Your task to perform on an android device: set the stopwatch Image 0: 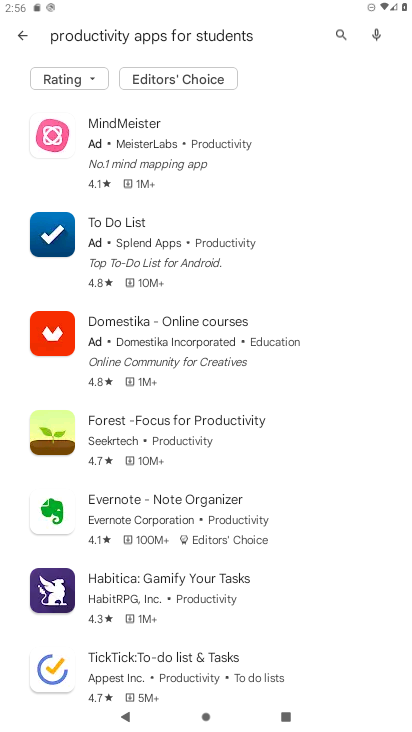
Step 0: press home button
Your task to perform on an android device: set the stopwatch Image 1: 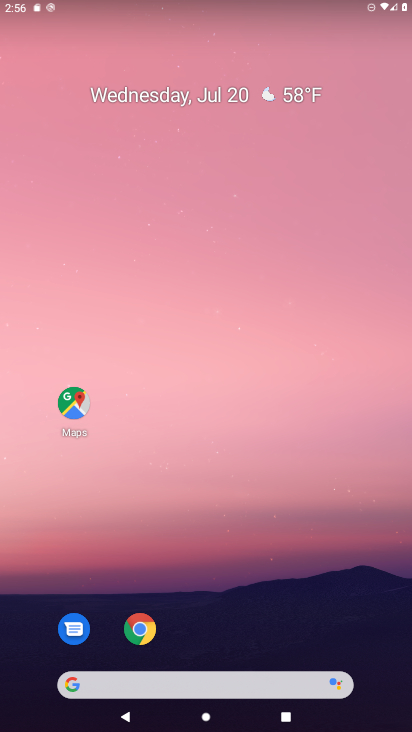
Step 1: drag from (272, 604) to (222, 71)
Your task to perform on an android device: set the stopwatch Image 2: 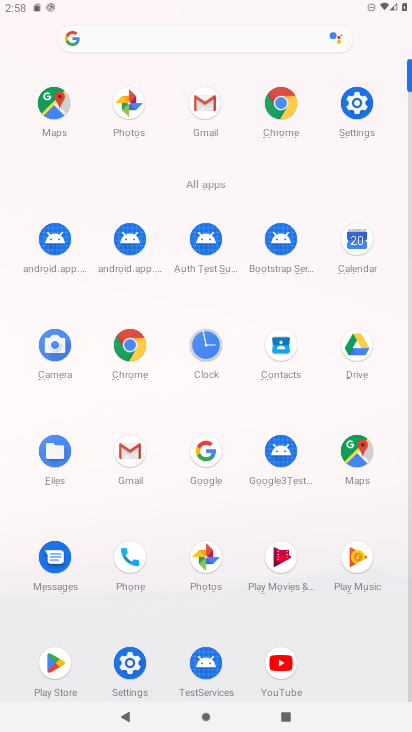
Step 2: click (207, 361)
Your task to perform on an android device: set the stopwatch Image 3: 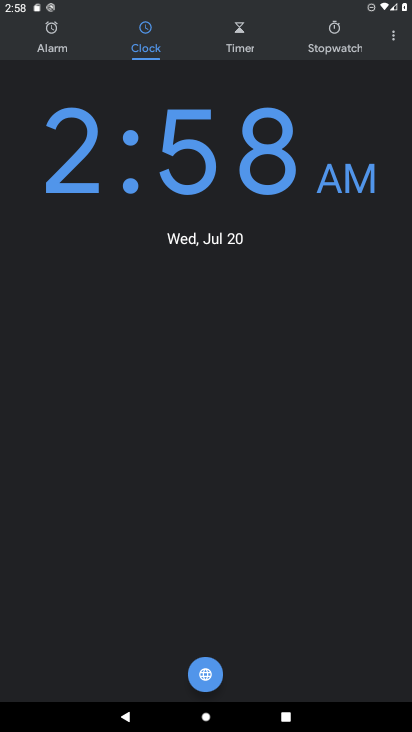
Step 3: click (322, 37)
Your task to perform on an android device: set the stopwatch Image 4: 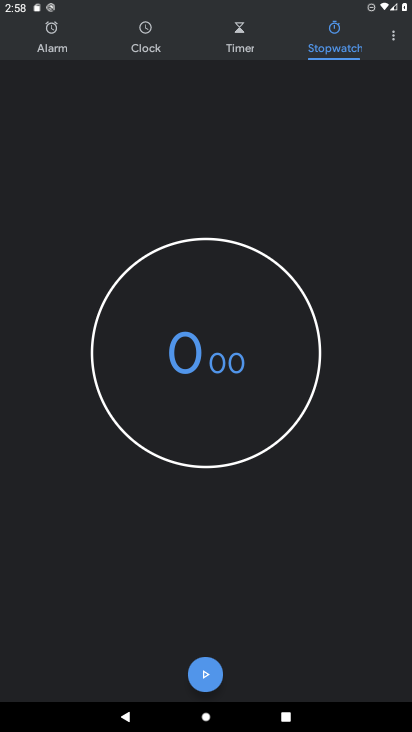
Step 4: task complete